Your task to perform on an android device: Search for "alienware area 51" on amazon.com, select the first entry, add it to the cart, then select checkout. Image 0: 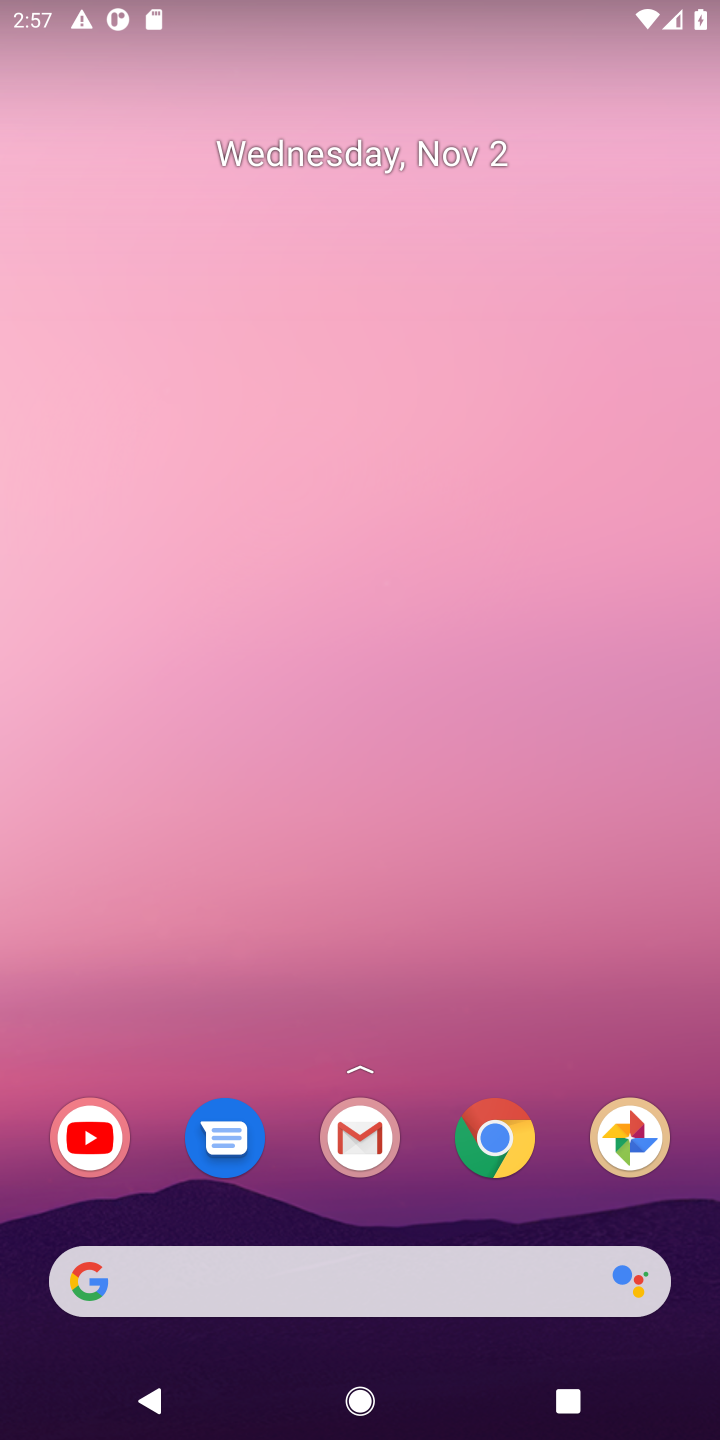
Step 0: press home button
Your task to perform on an android device: Search for "alienware area 51" on amazon.com, select the first entry, add it to the cart, then select checkout. Image 1: 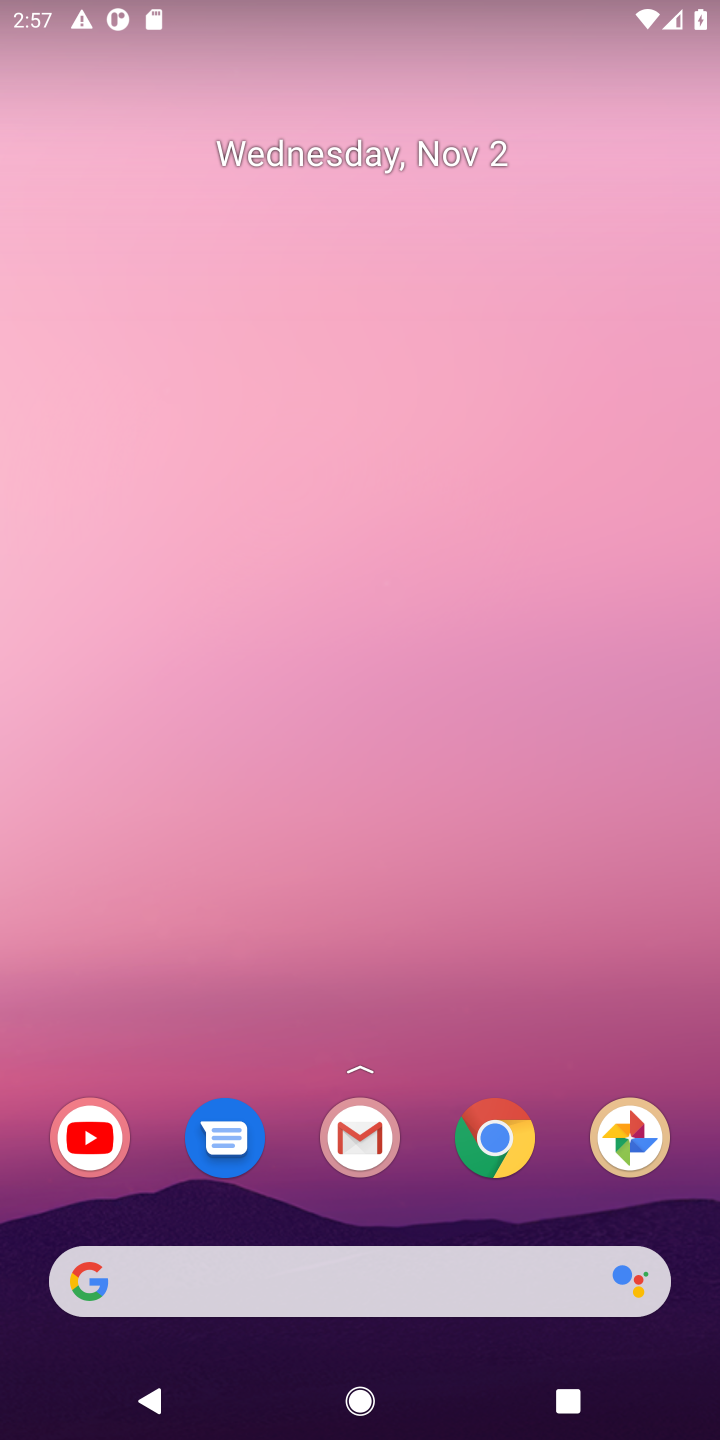
Step 1: click (129, 1266)
Your task to perform on an android device: Search for "alienware area 51" on amazon.com, select the first entry, add it to the cart, then select checkout. Image 2: 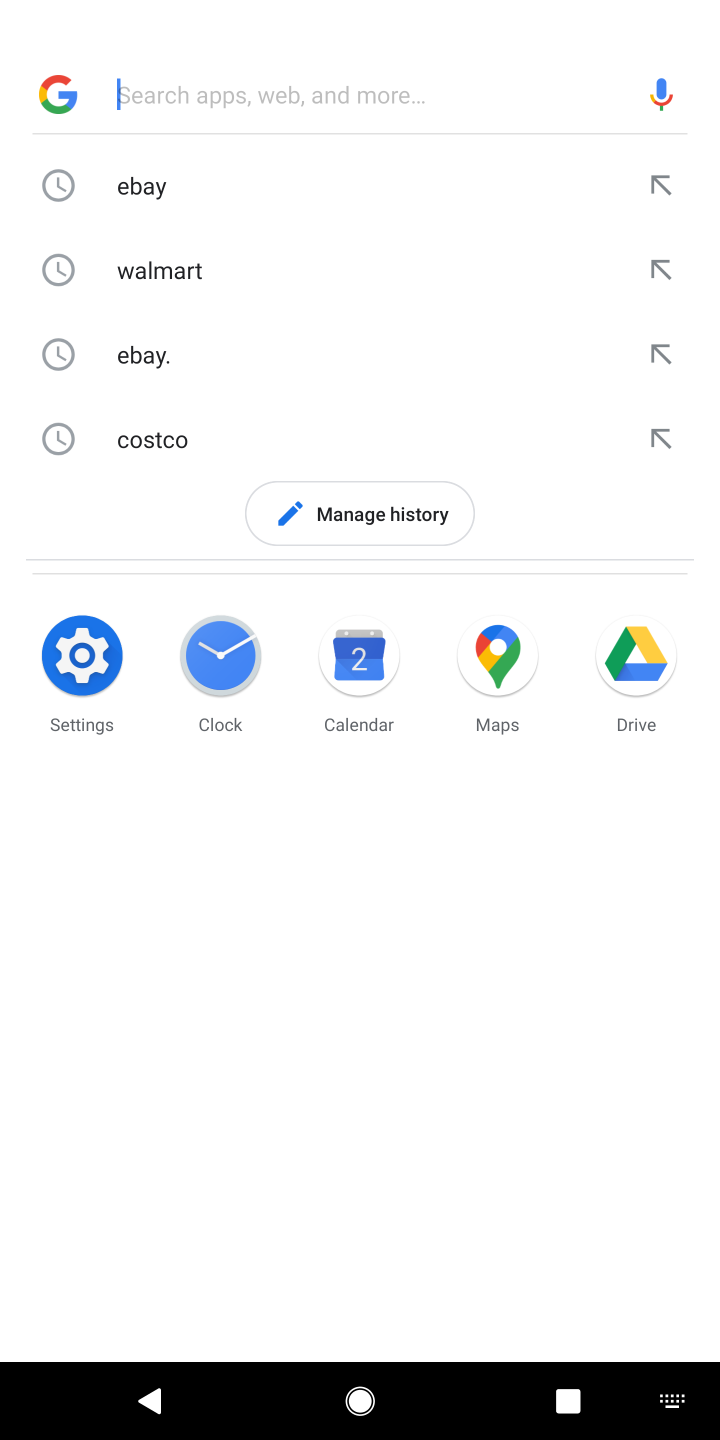
Step 2: type "amazon.com"
Your task to perform on an android device: Search for "alienware area 51" on amazon.com, select the first entry, add it to the cart, then select checkout. Image 3: 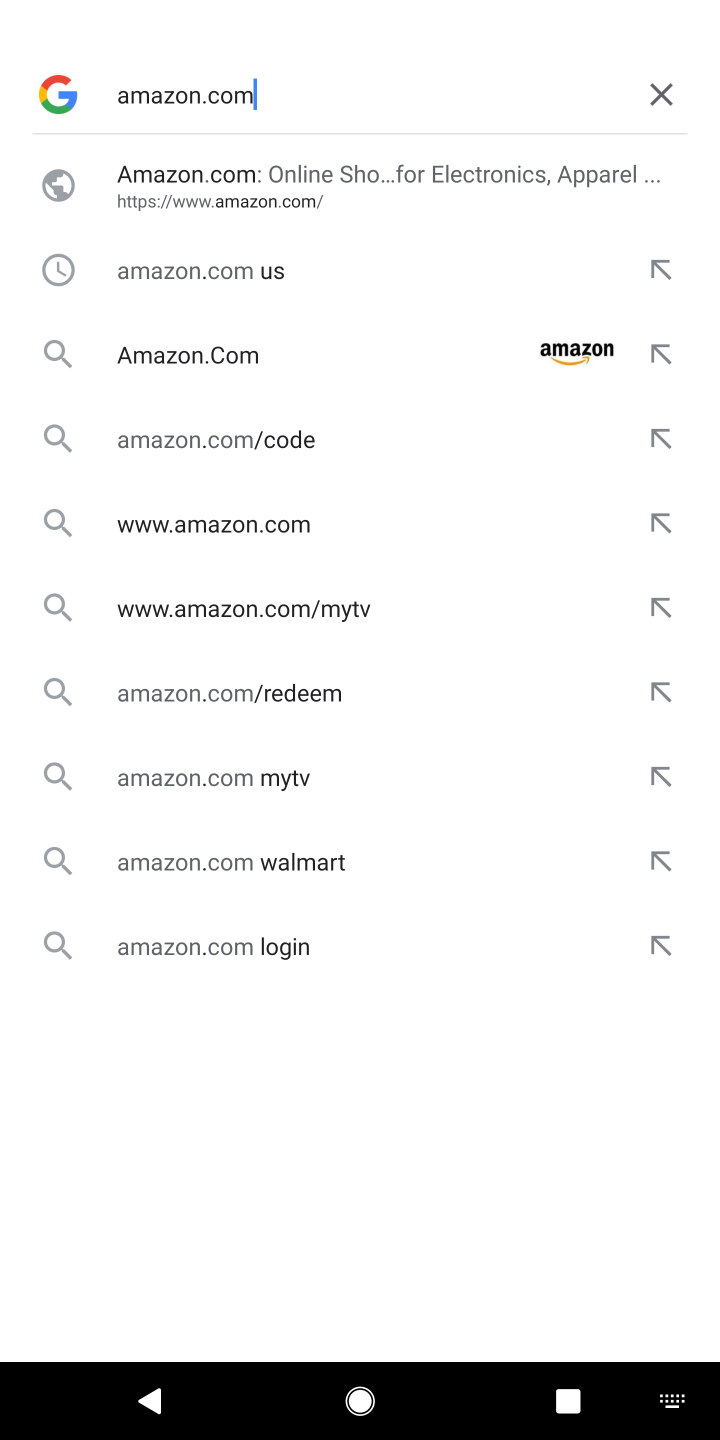
Step 3: press enter
Your task to perform on an android device: Search for "alienware area 51" on amazon.com, select the first entry, add it to the cart, then select checkout. Image 4: 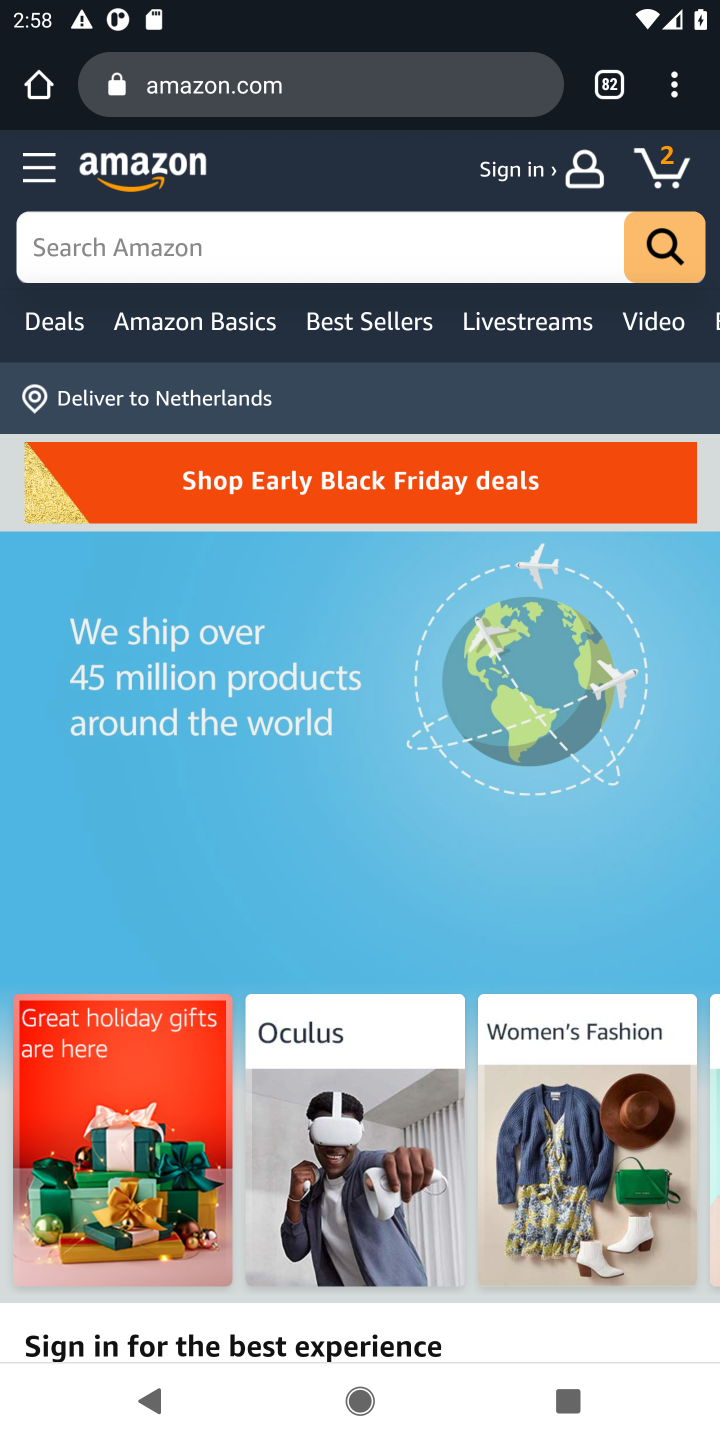
Step 4: click (155, 252)
Your task to perform on an android device: Search for "alienware area 51" on amazon.com, select the first entry, add it to the cart, then select checkout. Image 5: 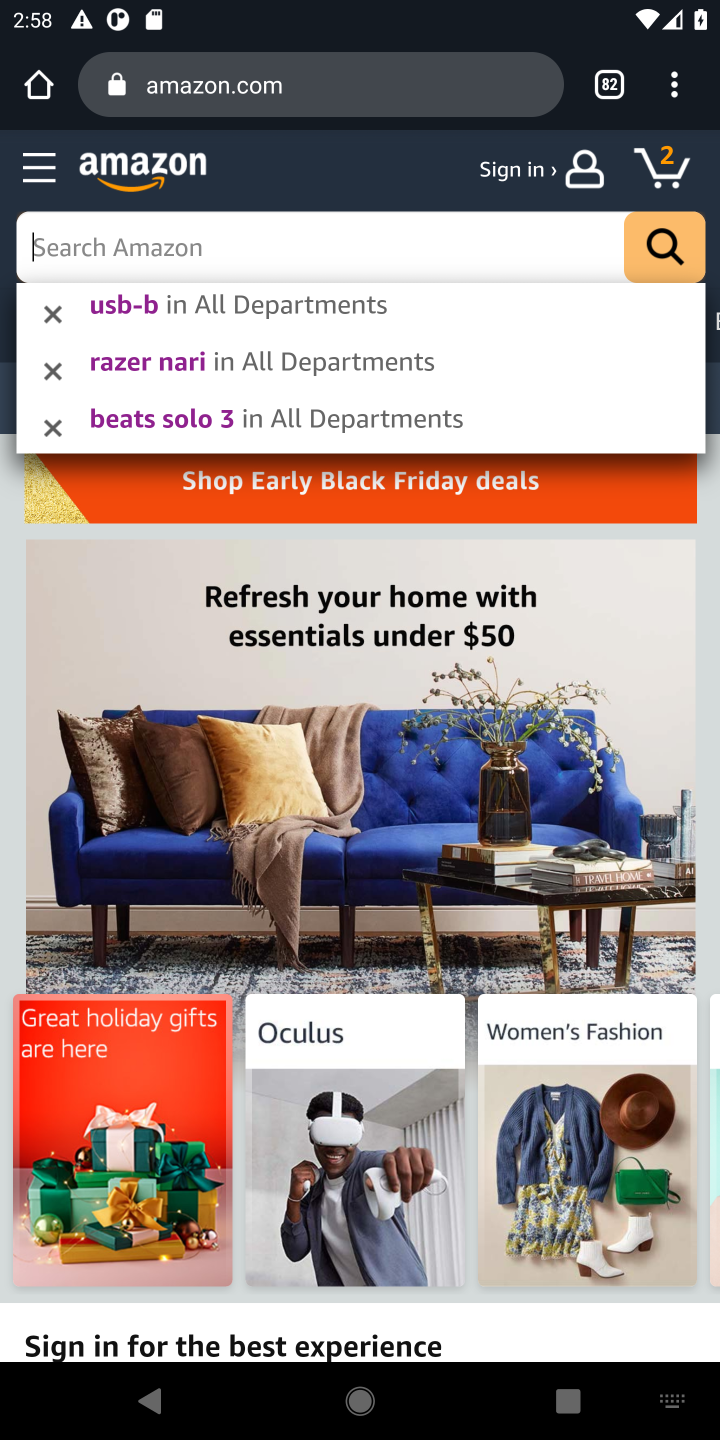
Step 5: type "alienware area 51"
Your task to perform on an android device: Search for "alienware area 51" on amazon.com, select the first entry, add it to the cart, then select checkout. Image 6: 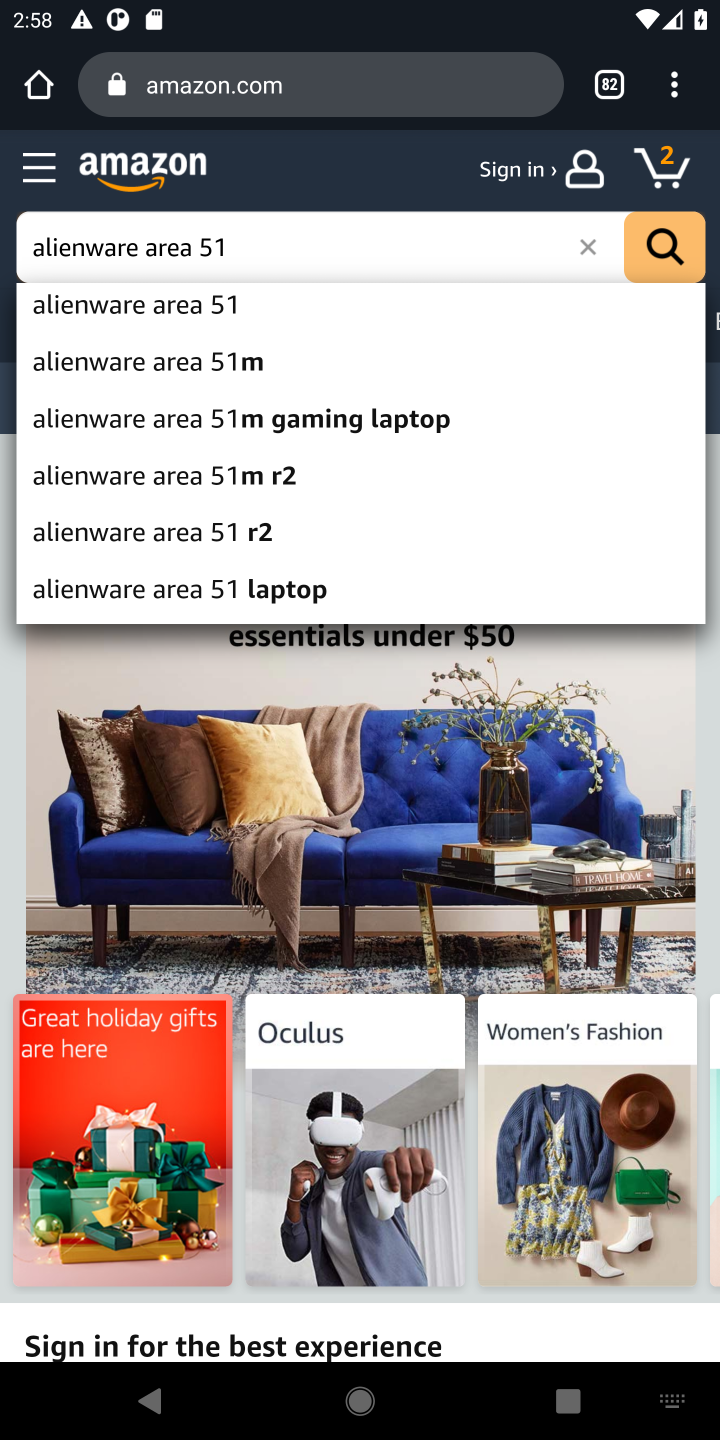
Step 6: click (663, 242)
Your task to perform on an android device: Search for "alienware area 51" on amazon.com, select the first entry, add it to the cart, then select checkout. Image 7: 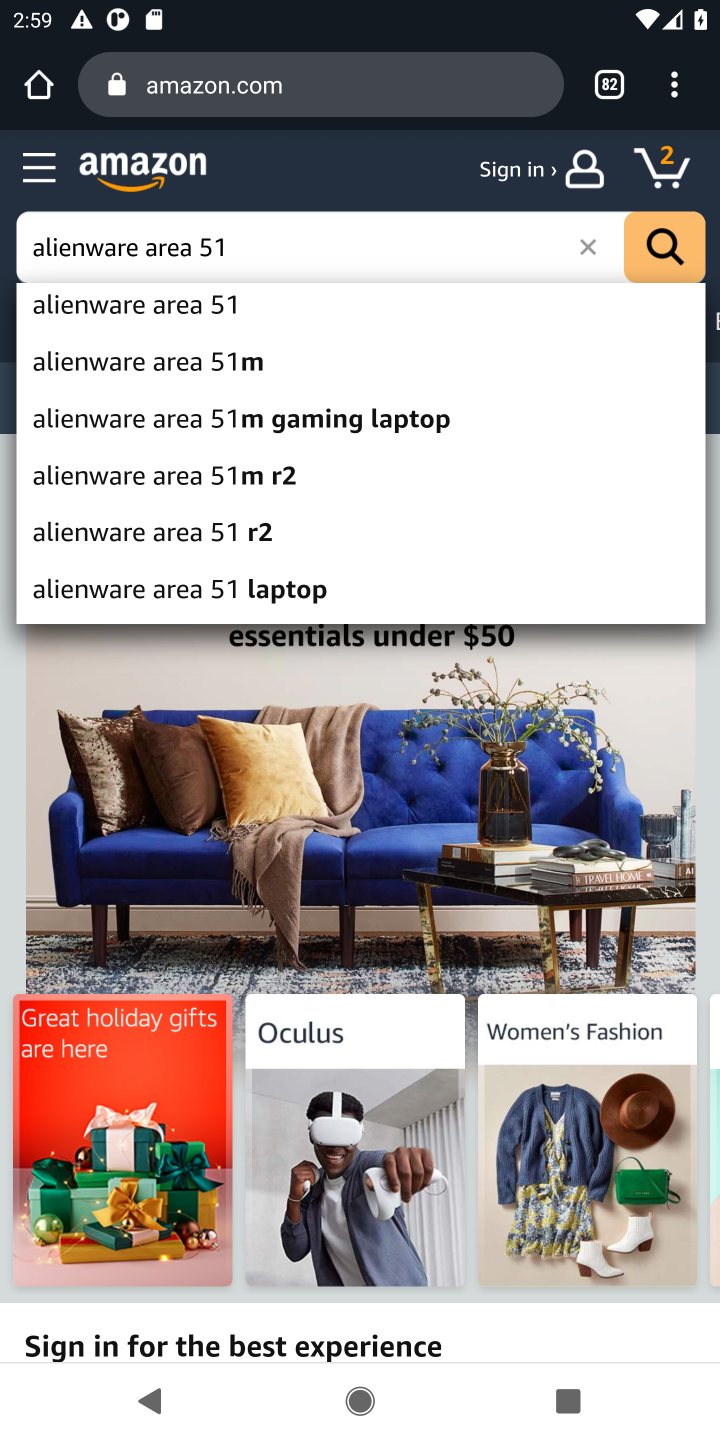
Step 7: click (671, 255)
Your task to perform on an android device: Search for "alienware area 51" on amazon.com, select the first entry, add it to the cart, then select checkout. Image 8: 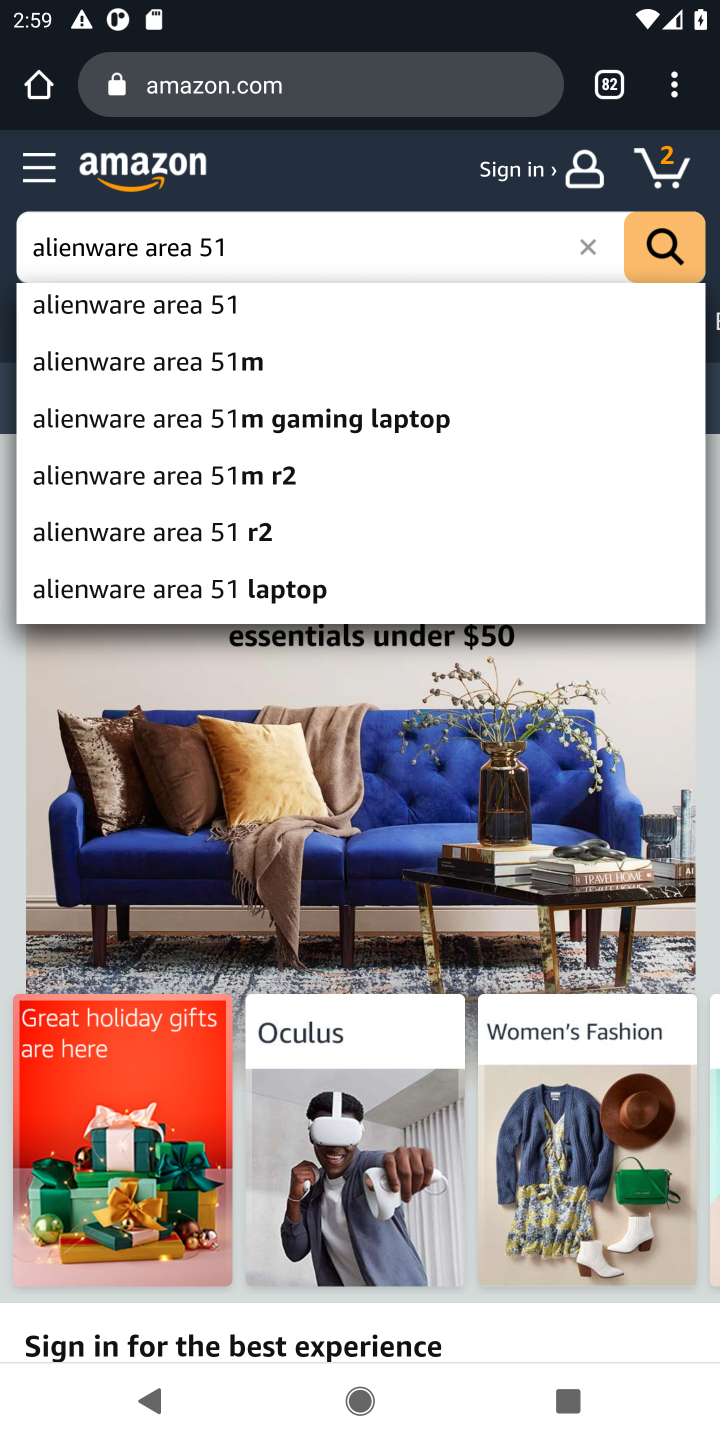
Step 8: click (667, 230)
Your task to perform on an android device: Search for "alienware area 51" on amazon.com, select the first entry, add it to the cart, then select checkout. Image 9: 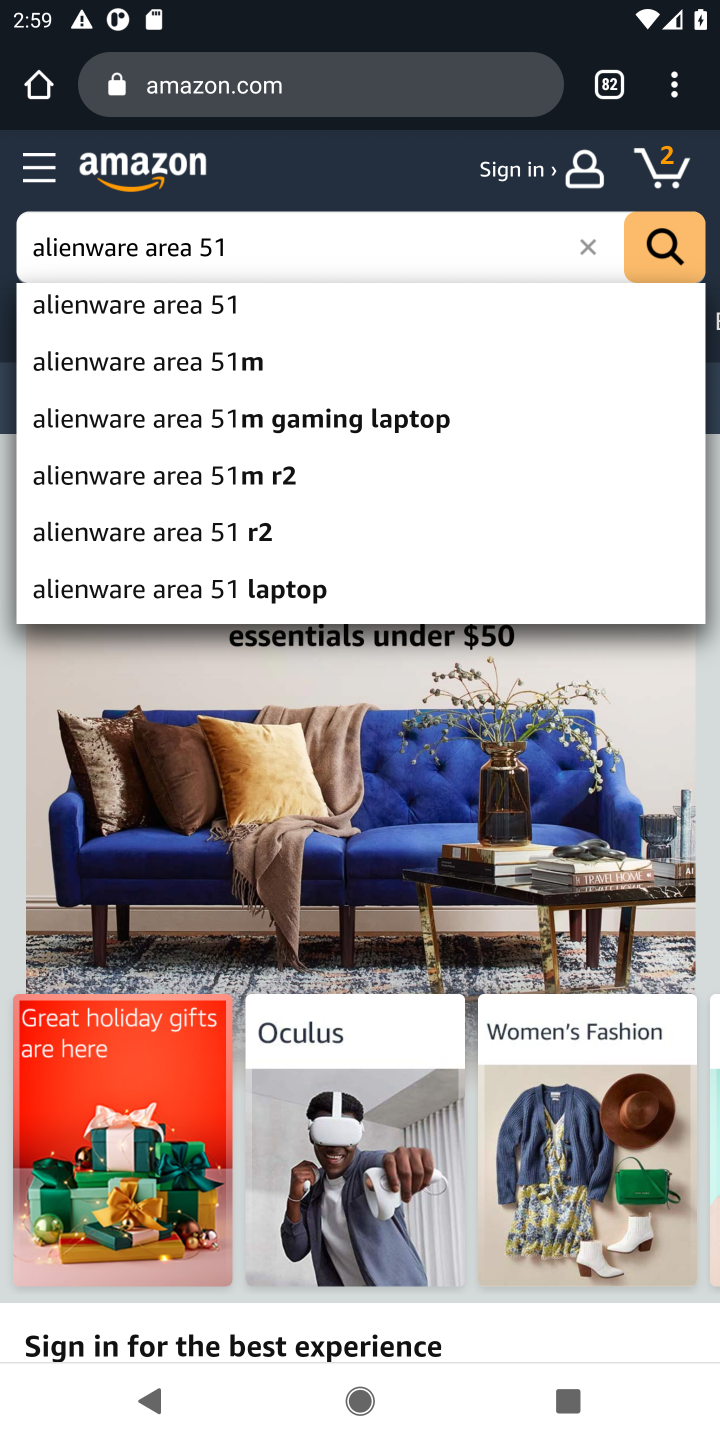
Step 9: click (666, 242)
Your task to perform on an android device: Search for "alienware area 51" on amazon.com, select the first entry, add it to the cart, then select checkout. Image 10: 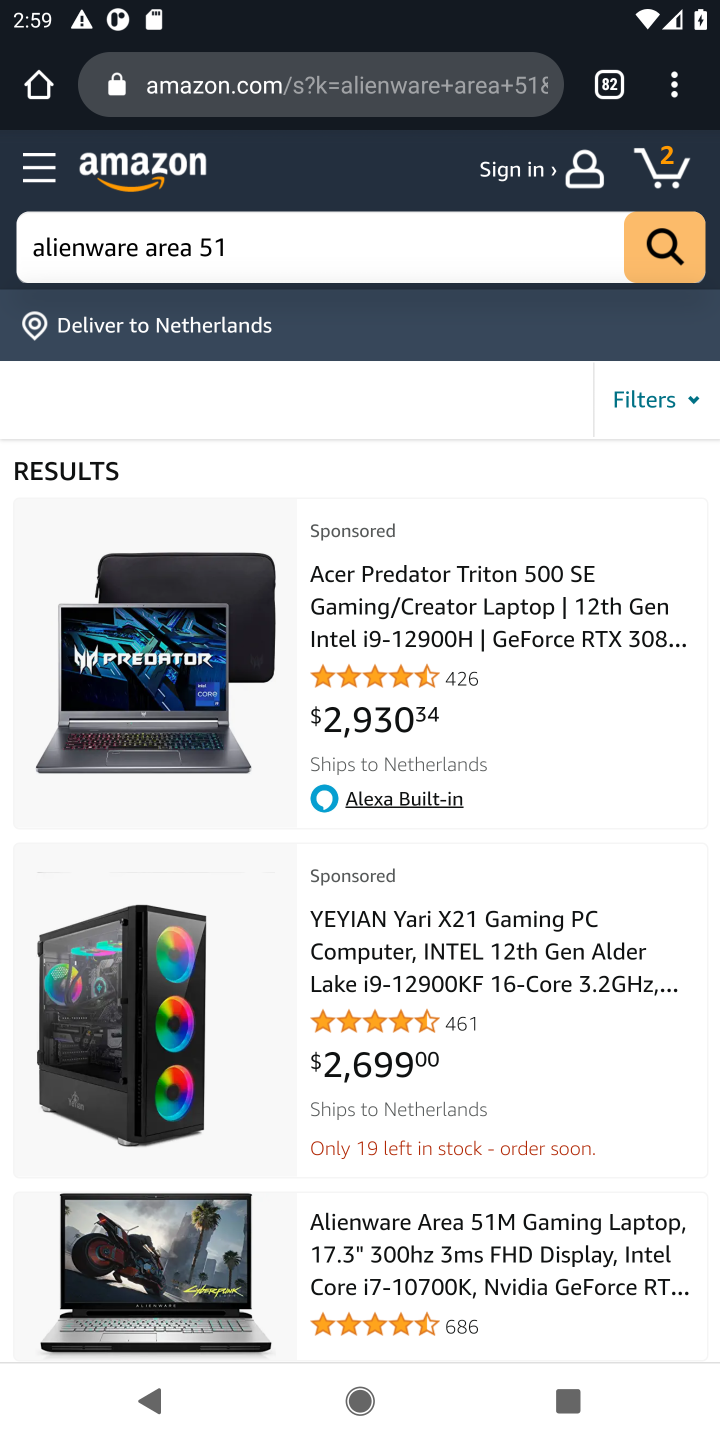
Step 10: drag from (422, 1183) to (416, 851)
Your task to perform on an android device: Search for "alienware area 51" on amazon.com, select the first entry, add it to the cart, then select checkout. Image 11: 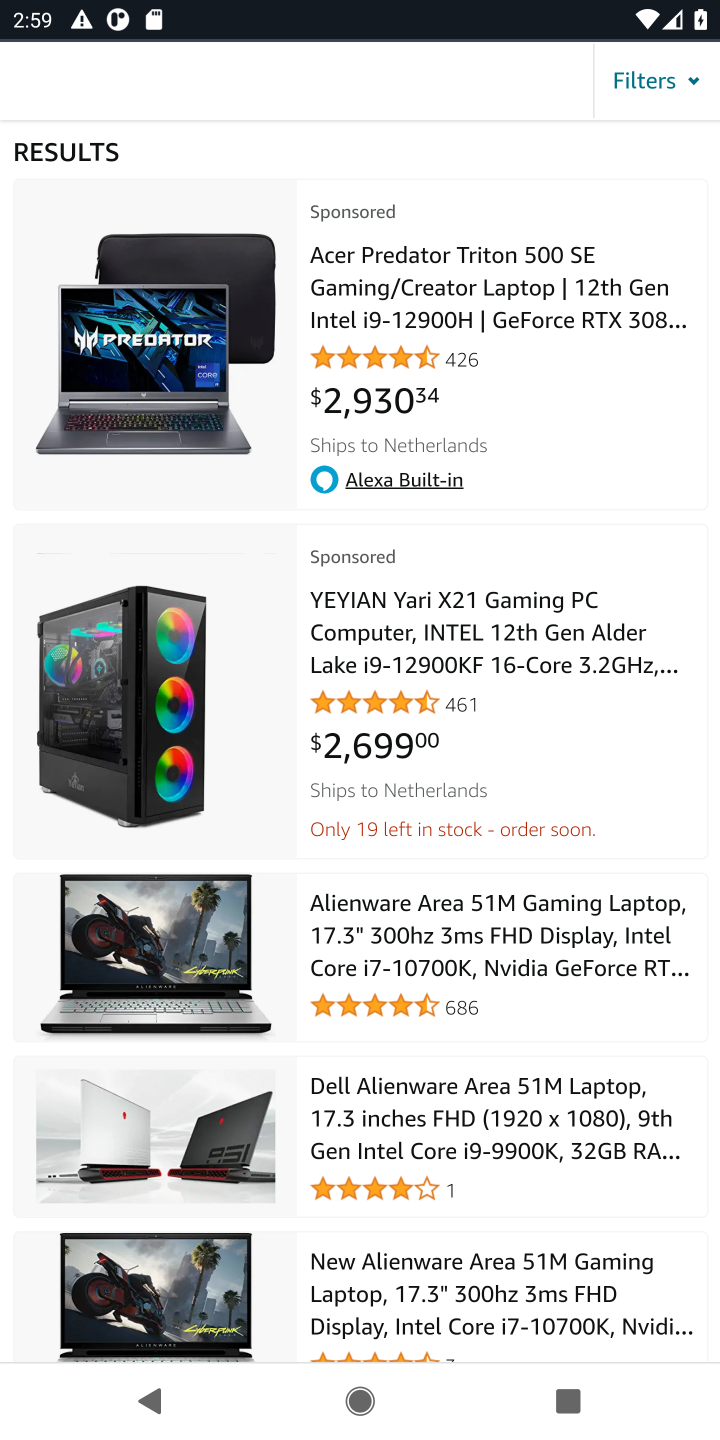
Step 11: drag from (430, 1146) to (473, 912)
Your task to perform on an android device: Search for "alienware area 51" on amazon.com, select the first entry, add it to the cart, then select checkout. Image 12: 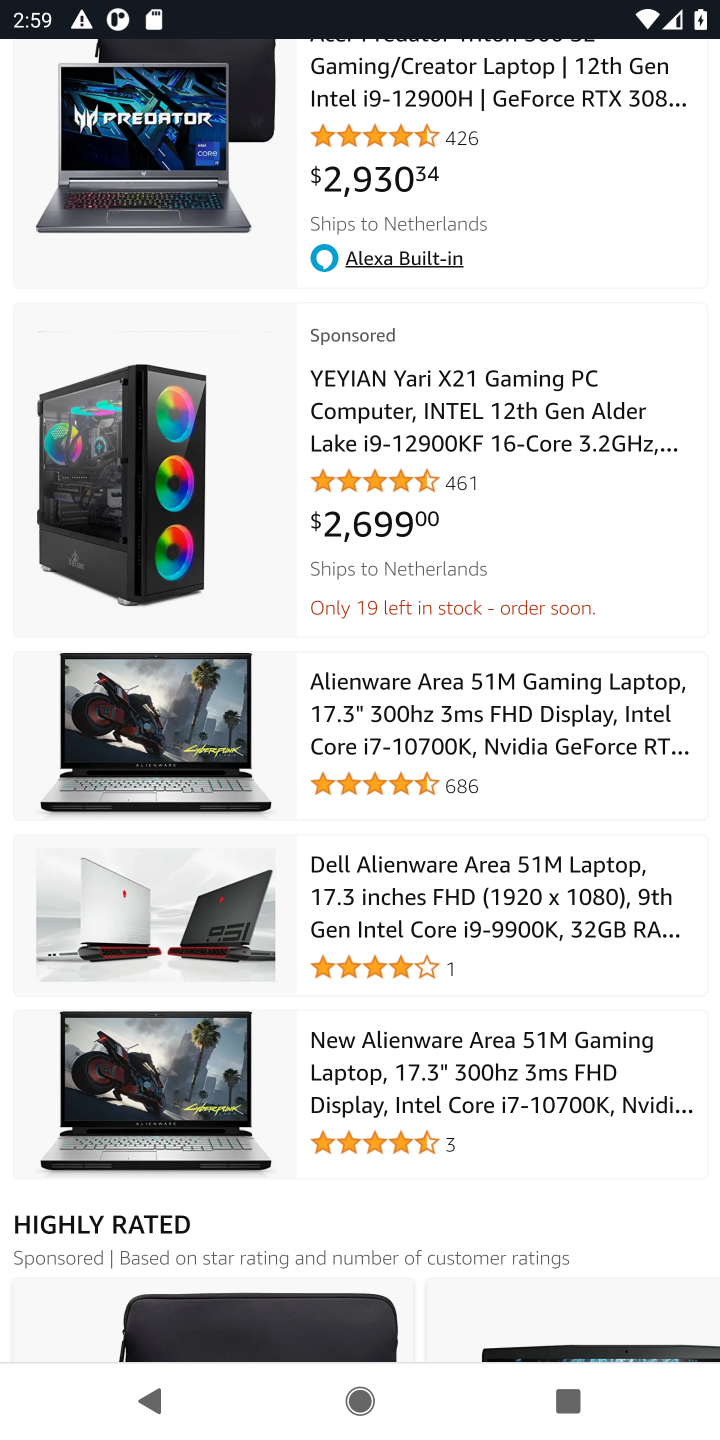
Step 12: click (490, 725)
Your task to perform on an android device: Search for "alienware area 51" on amazon.com, select the first entry, add it to the cart, then select checkout. Image 13: 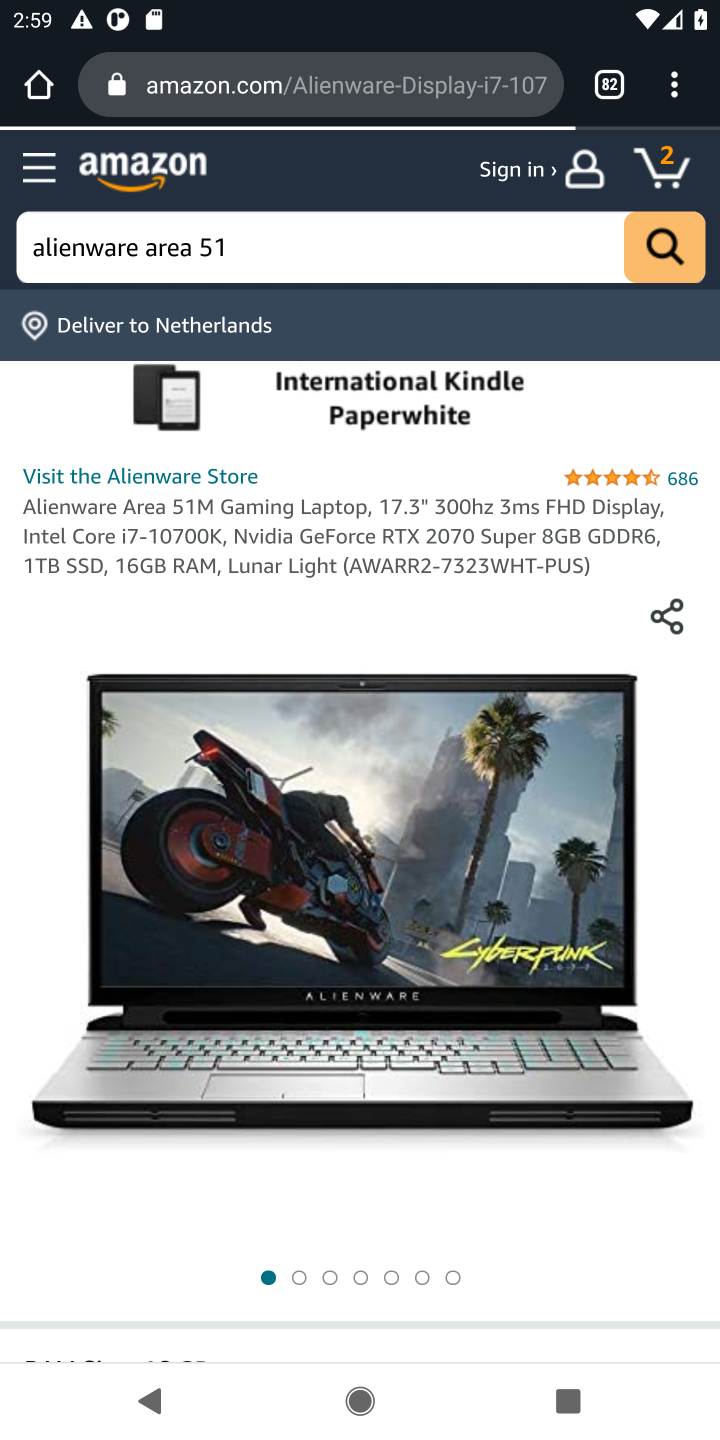
Step 13: task complete